Your task to perform on an android device: What's on my calendar tomorrow? Image 0: 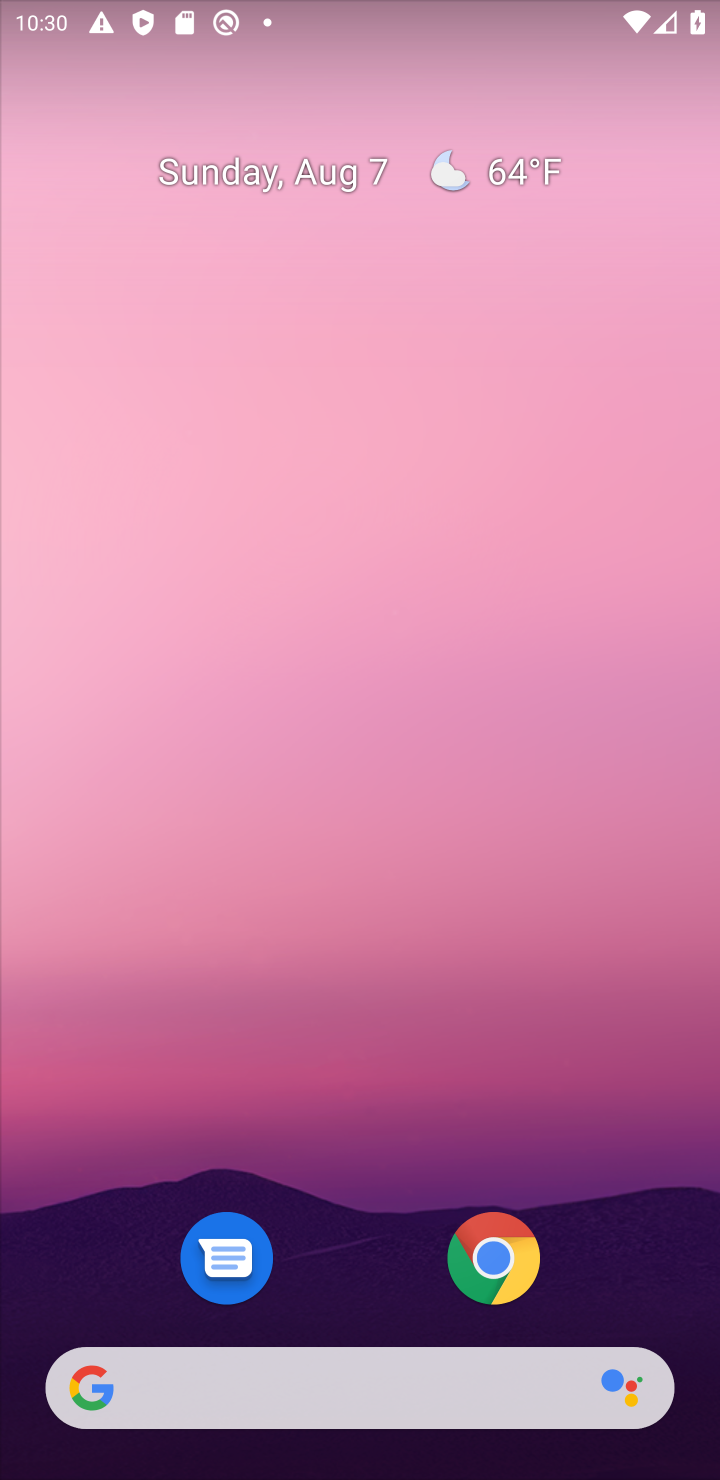
Step 0: press home button
Your task to perform on an android device: What's on my calendar tomorrow? Image 1: 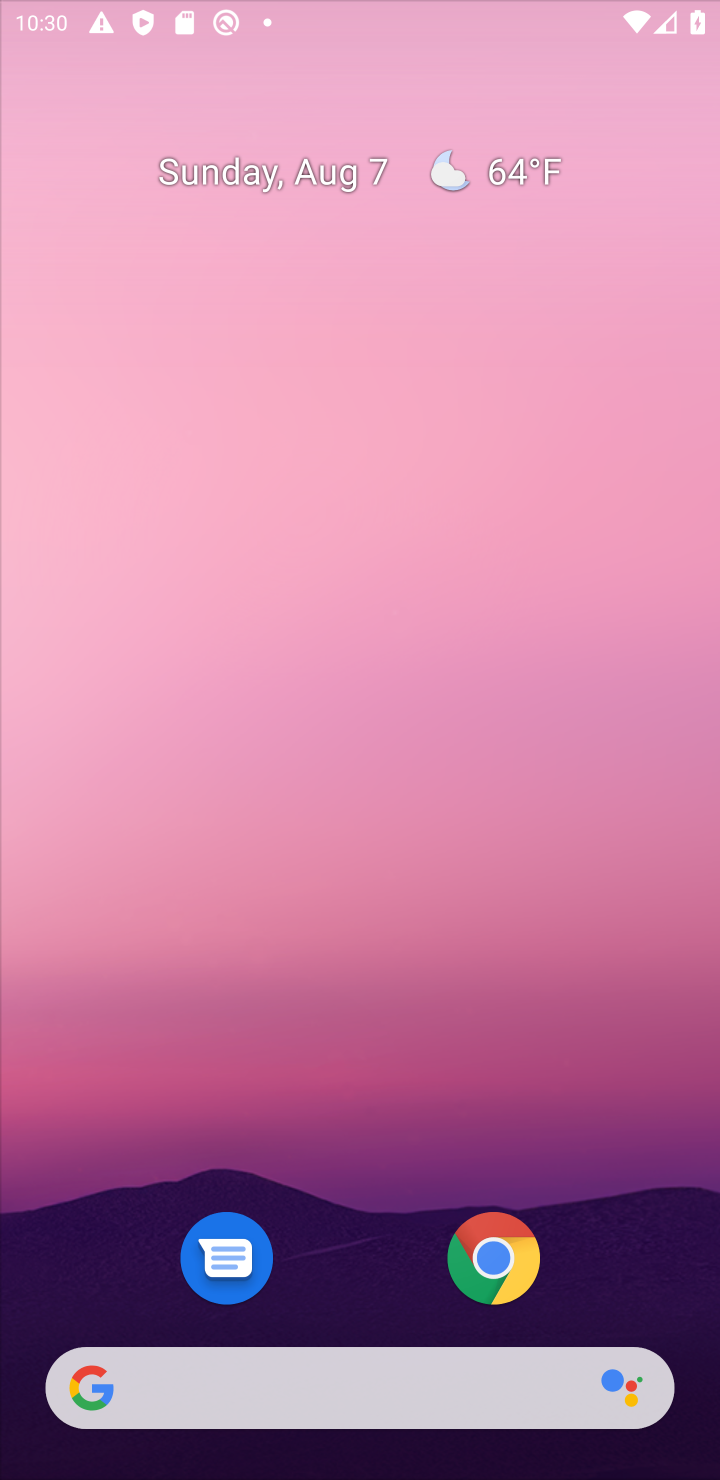
Step 1: drag from (376, 1033) to (480, 201)
Your task to perform on an android device: What's on my calendar tomorrow? Image 2: 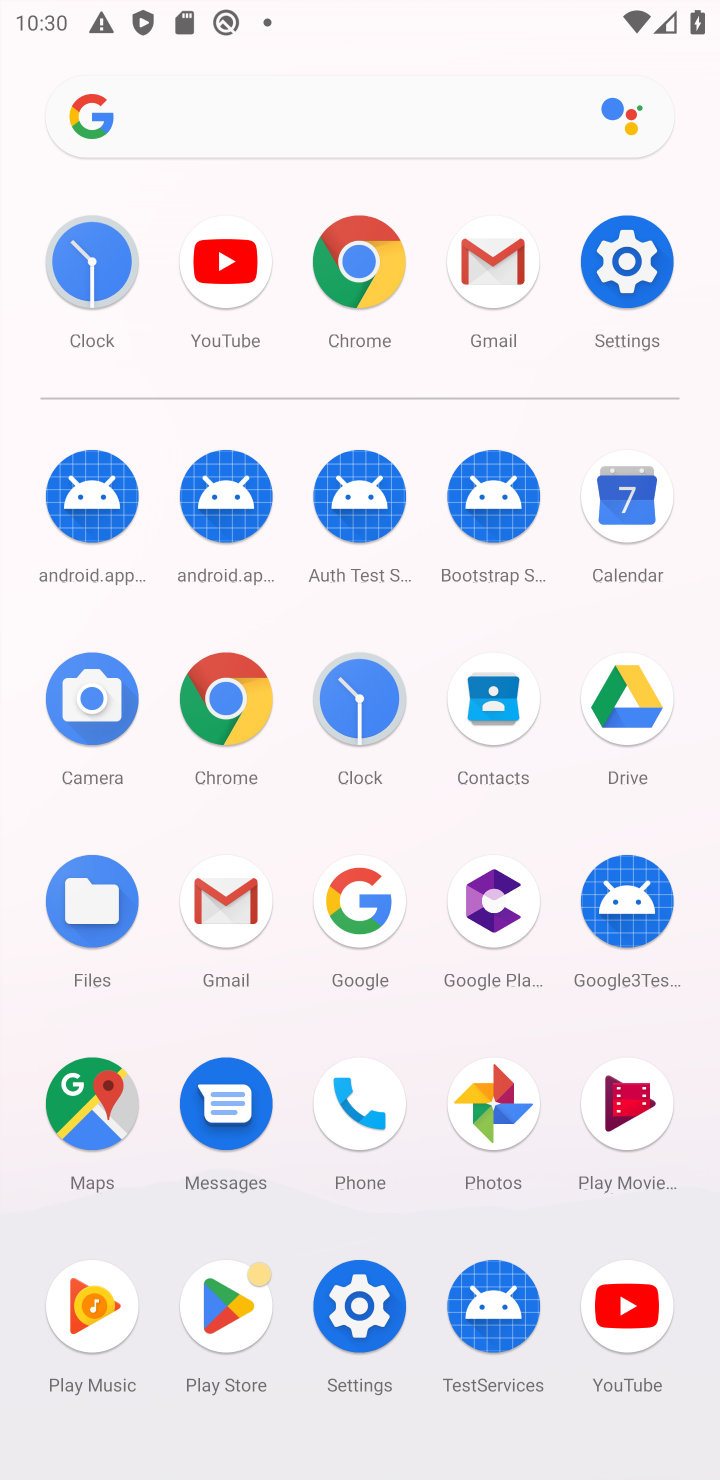
Step 2: click (618, 548)
Your task to perform on an android device: What's on my calendar tomorrow? Image 3: 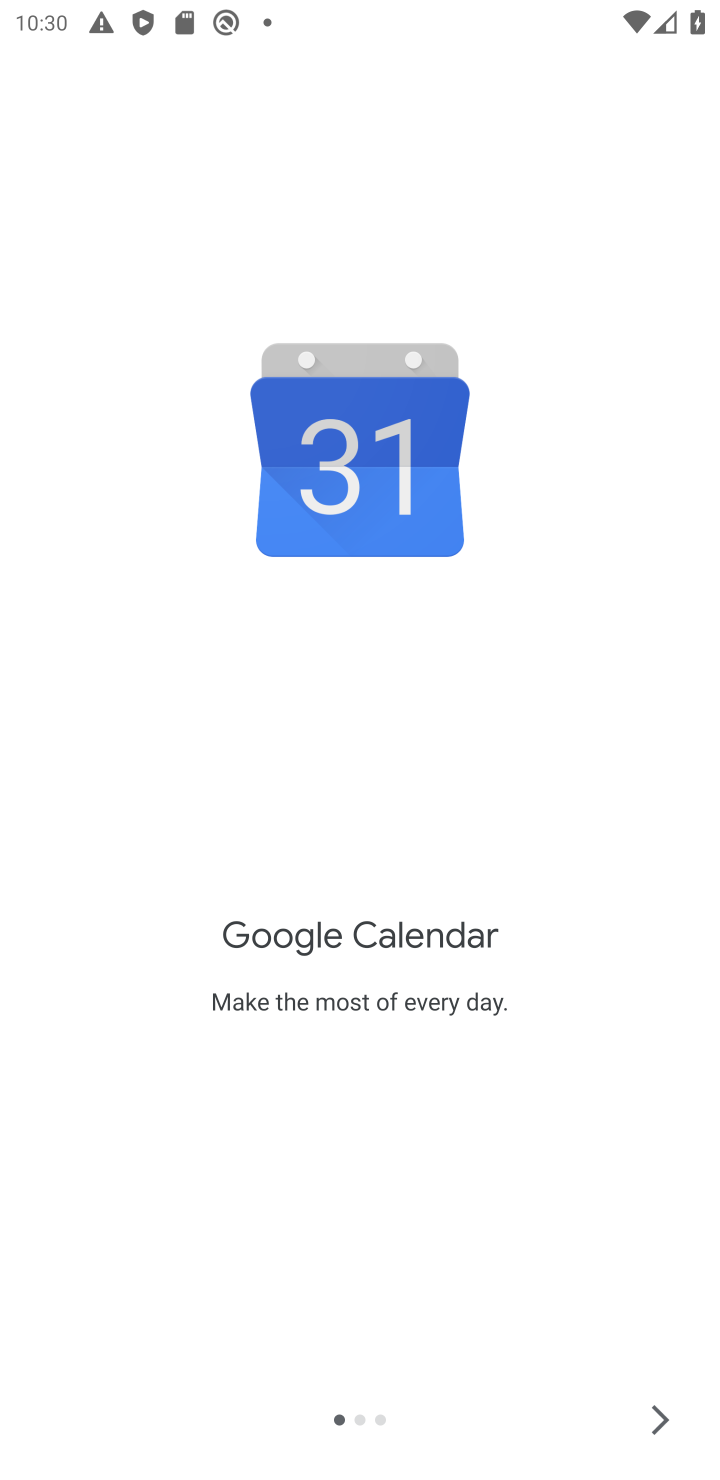
Step 3: click (662, 1421)
Your task to perform on an android device: What's on my calendar tomorrow? Image 4: 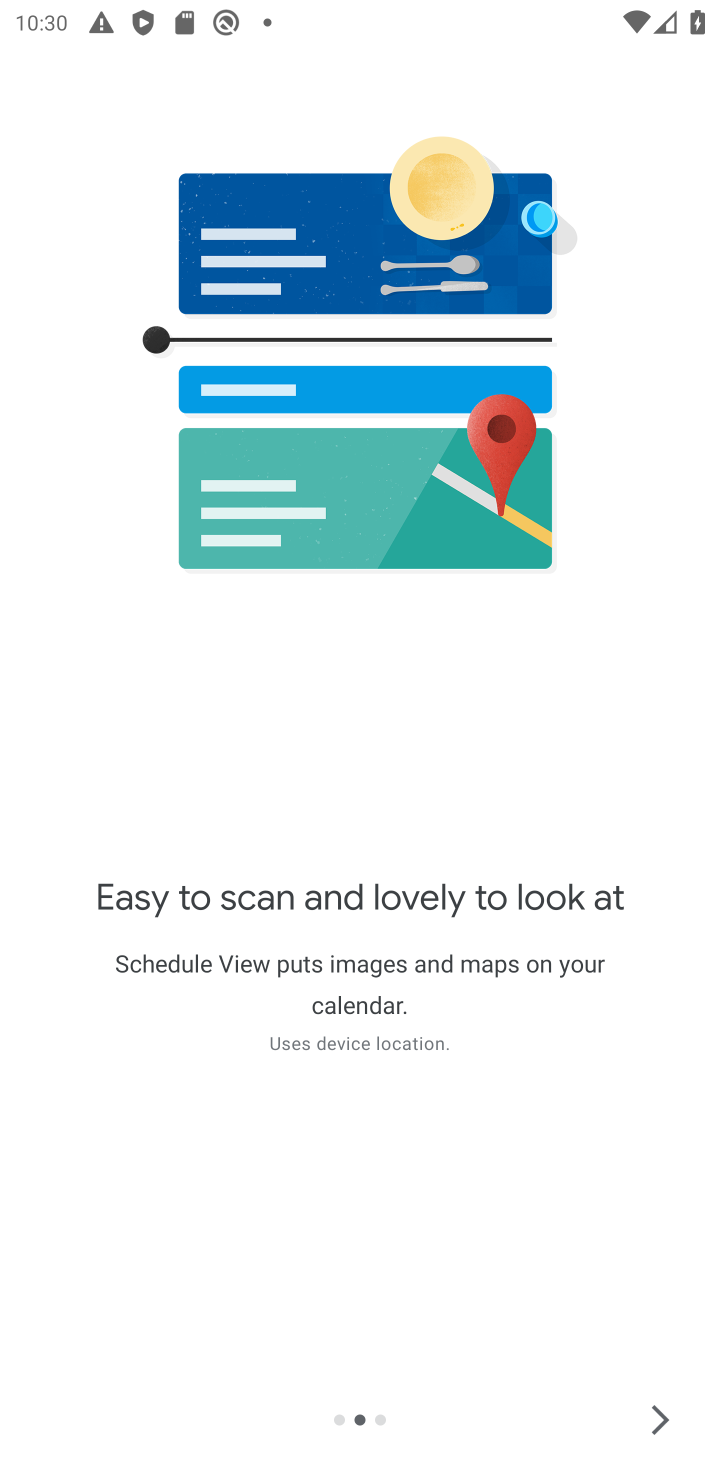
Step 4: click (662, 1421)
Your task to perform on an android device: What's on my calendar tomorrow? Image 5: 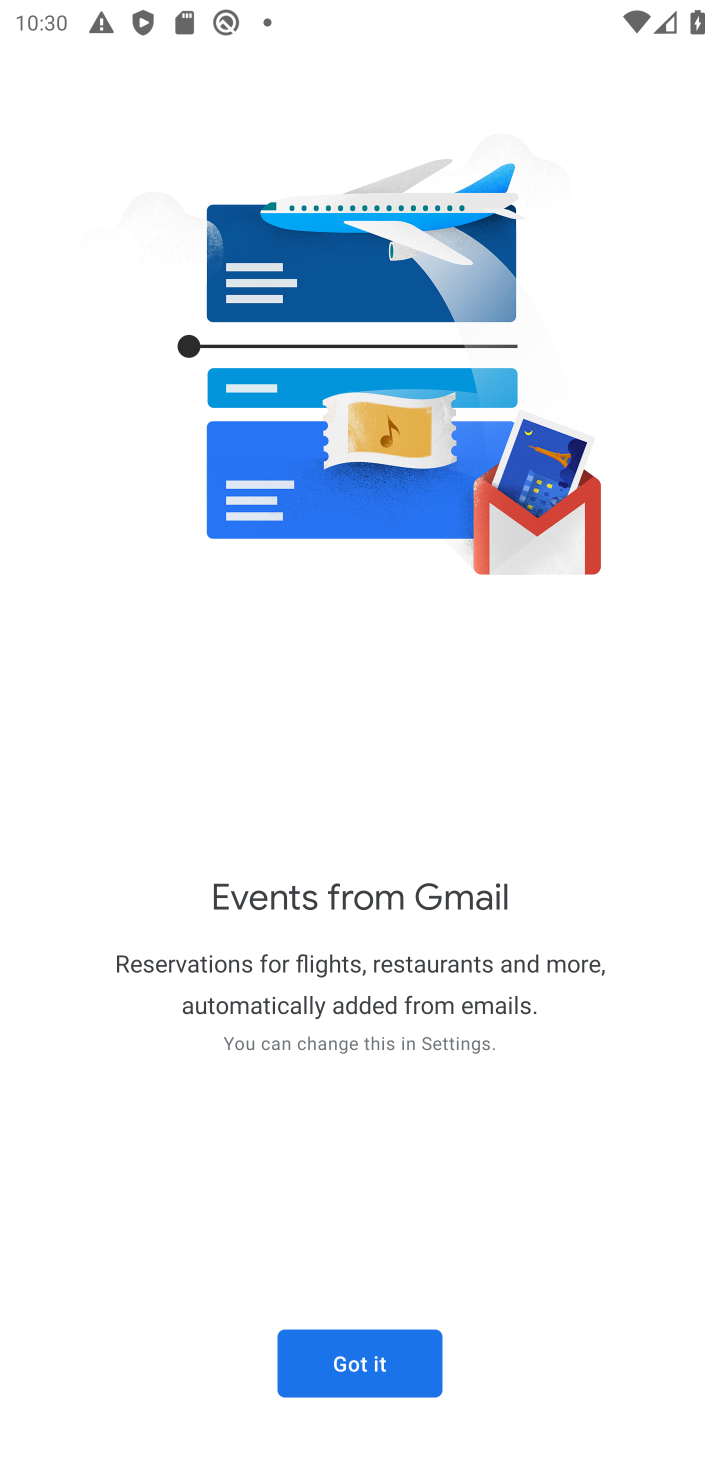
Step 5: click (350, 1371)
Your task to perform on an android device: What's on my calendar tomorrow? Image 6: 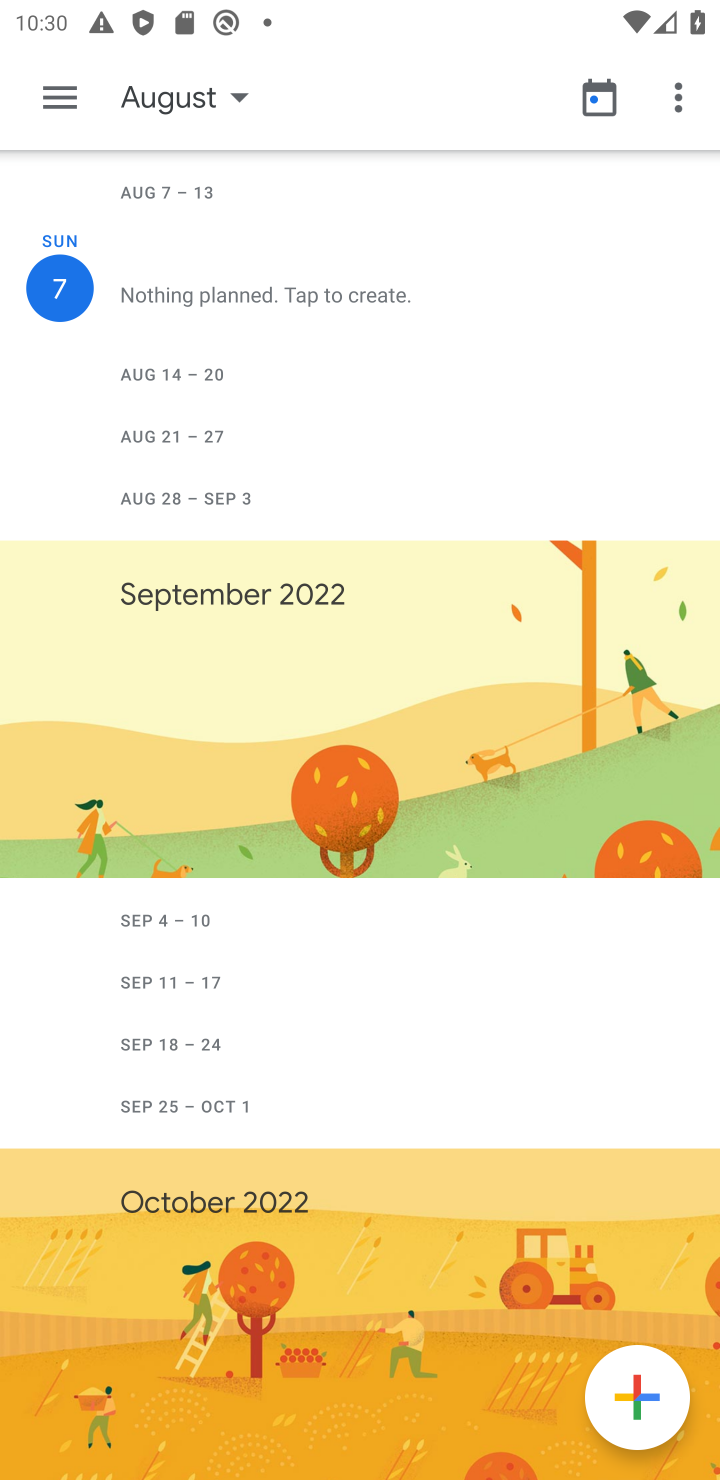
Step 6: click (227, 106)
Your task to perform on an android device: What's on my calendar tomorrow? Image 7: 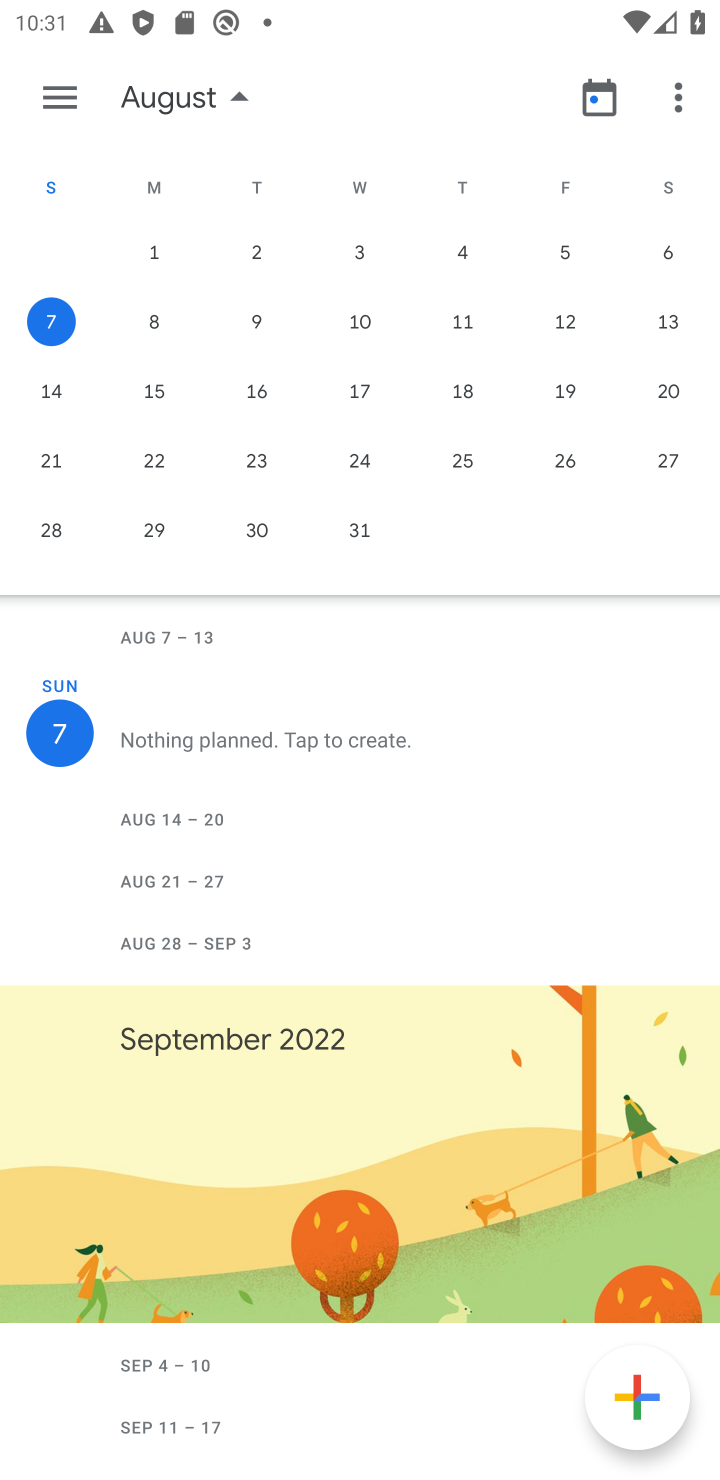
Step 7: click (258, 321)
Your task to perform on an android device: What's on my calendar tomorrow? Image 8: 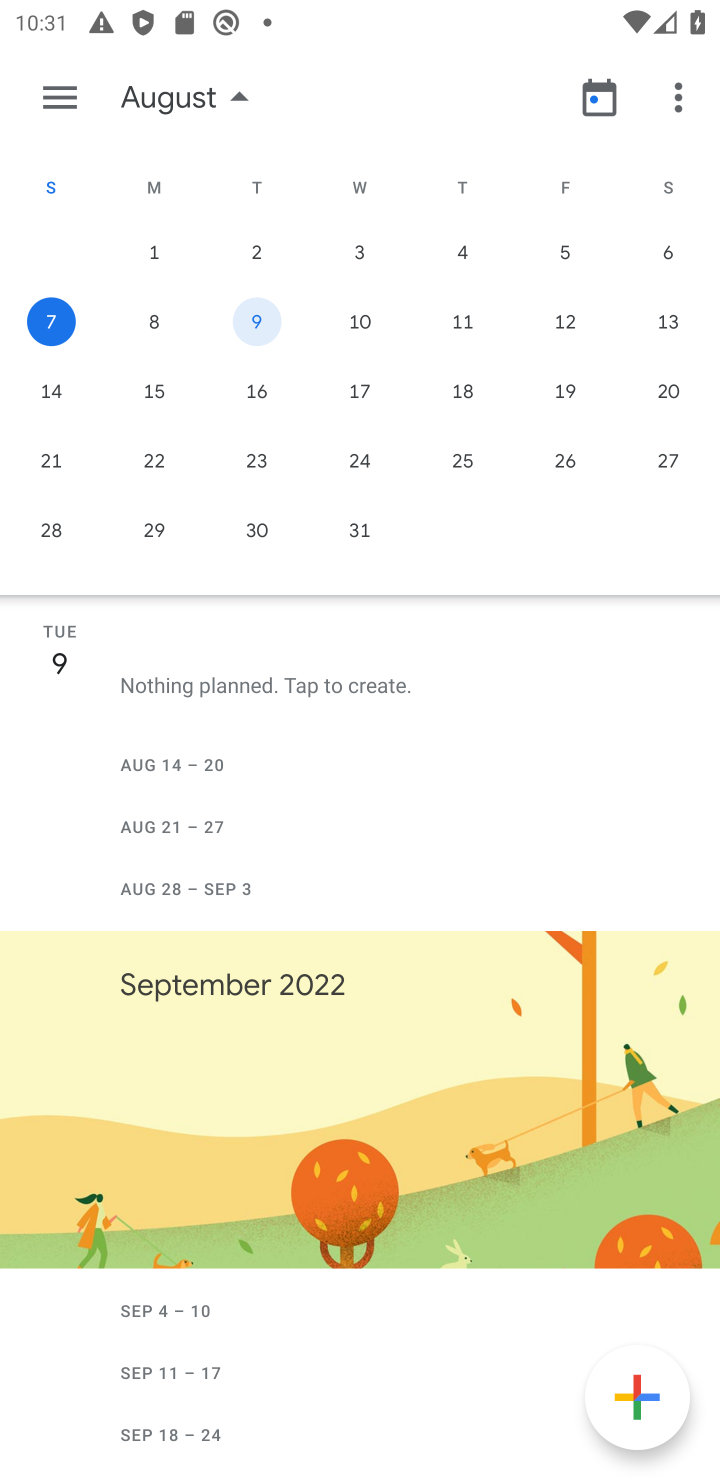
Step 8: task complete